Your task to perform on an android device: open app "Gmail" (install if not already installed) and enter user name: "undecidable@inbox.com" and password: "discouraging" Image 0: 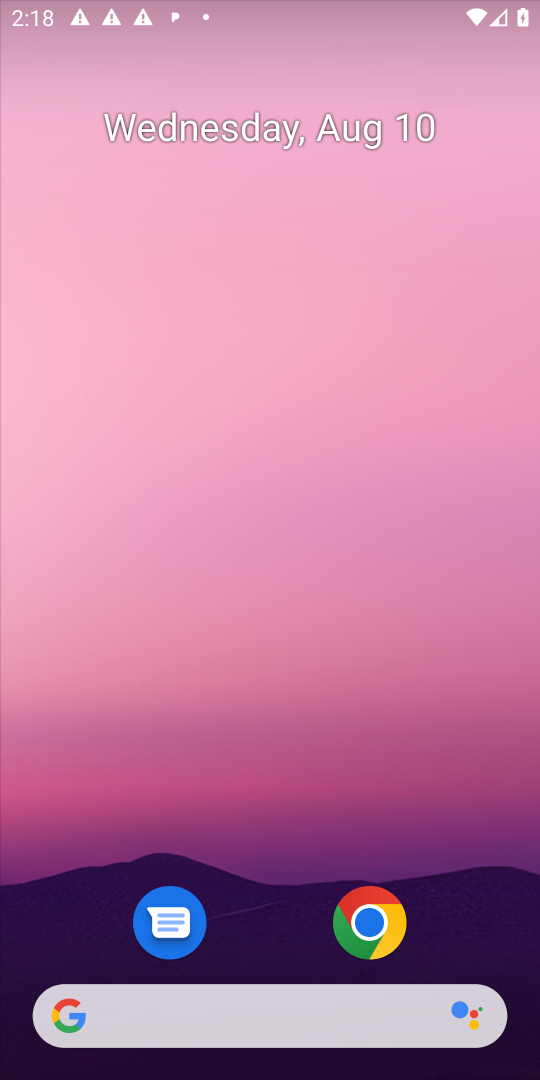
Step 0: press home button
Your task to perform on an android device: open app "Gmail" (install if not already installed) and enter user name: "undecidable@inbox.com" and password: "discouraging" Image 1: 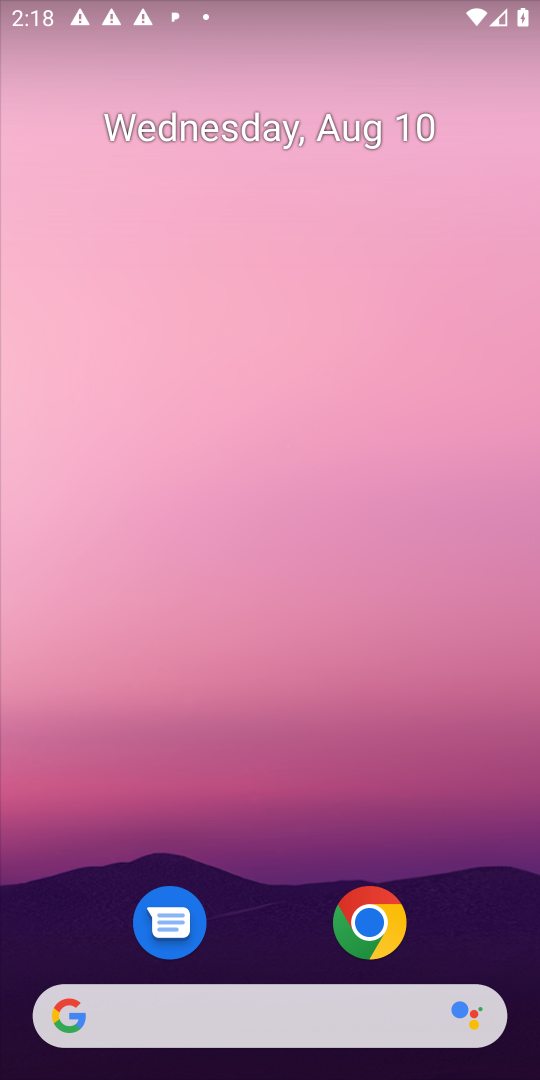
Step 1: drag from (161, 186) to (483, 5)
Your task to perform on an android device: open app "Gmail" (install if not already installed) and enter user name: "undecidable@inbox.com" and password: "discouraging" Image 2: 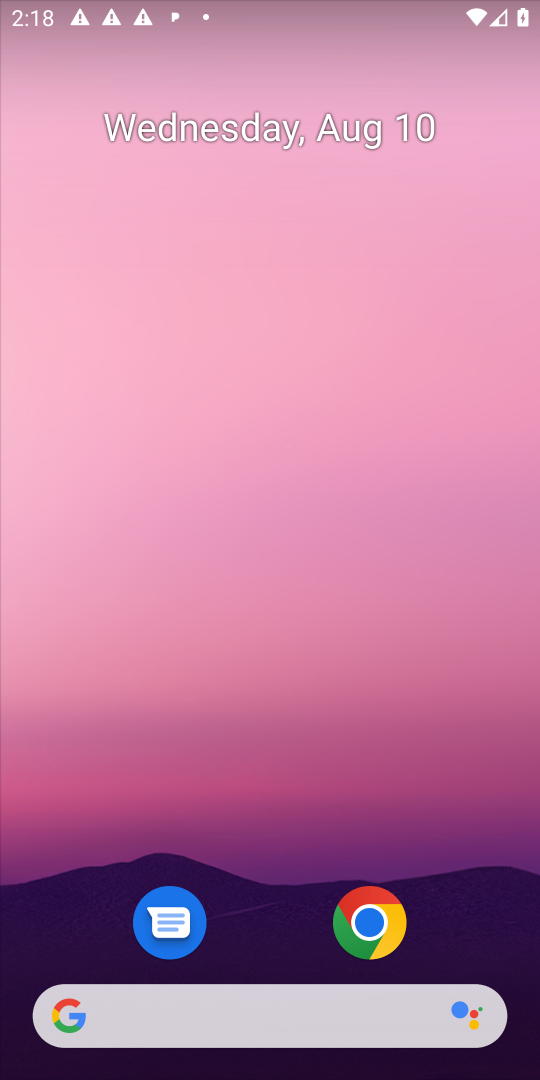
Step 2: drag from (278, 503) to (281, 0)
Your task to perform on an android device: open app "Gmail" (install if not already installed) and enter user name: "undecidable@inbox.com" and password: "discouraging" Image 3: 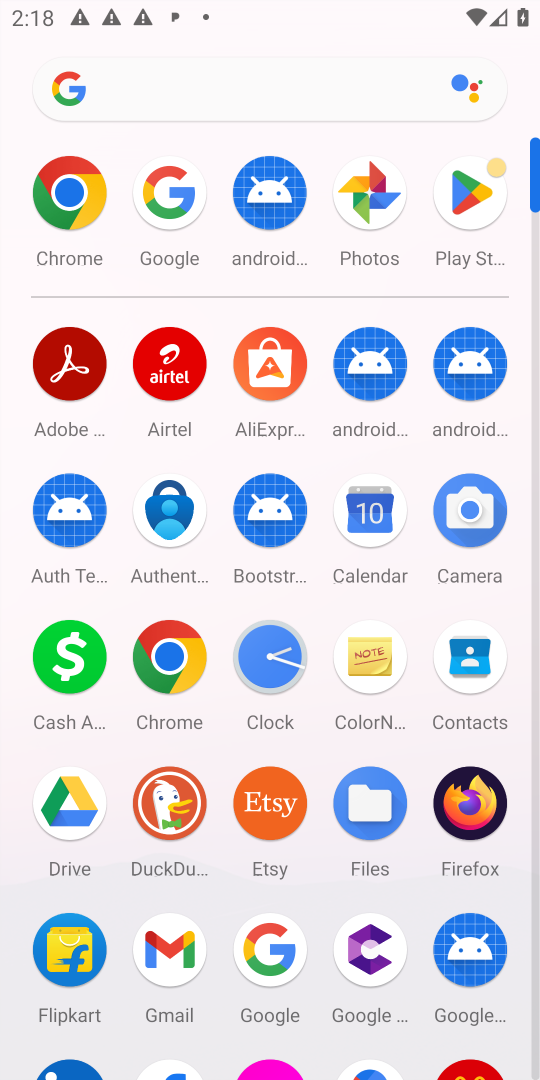
Step 3: click (470, 190)
Your task to perform on an android device: open app "Gmail" (install if not already installed) and enter user name: "undecidable@inbox.com" and password: "discouraging" Image 4: 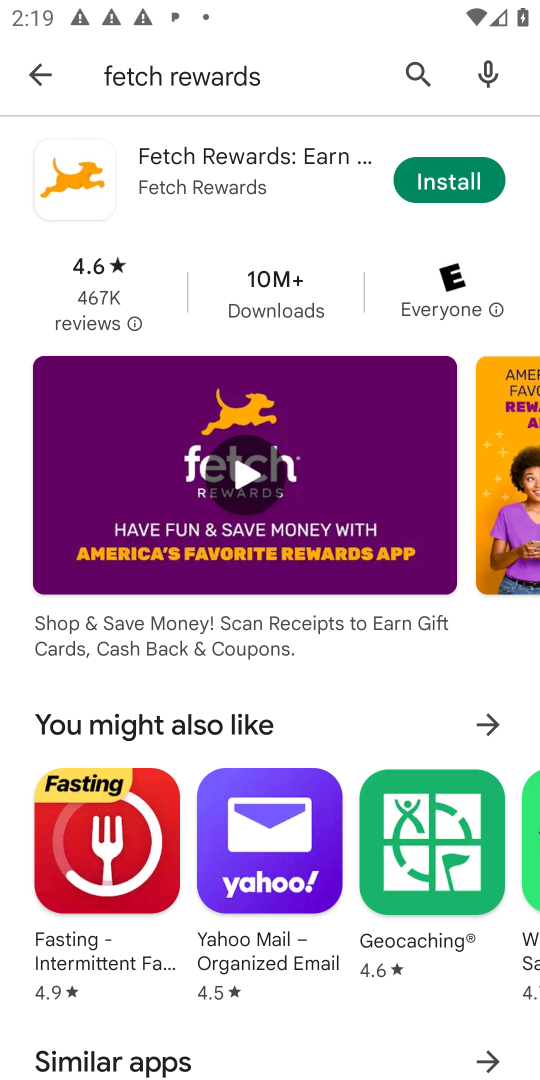
Step 4: click (42, 73)
Your task to perform on an android device: open app "Gmail" (install if not already installed) and enter user name: "undecidable@inbox.com" and password: "discouraging" Image 5: 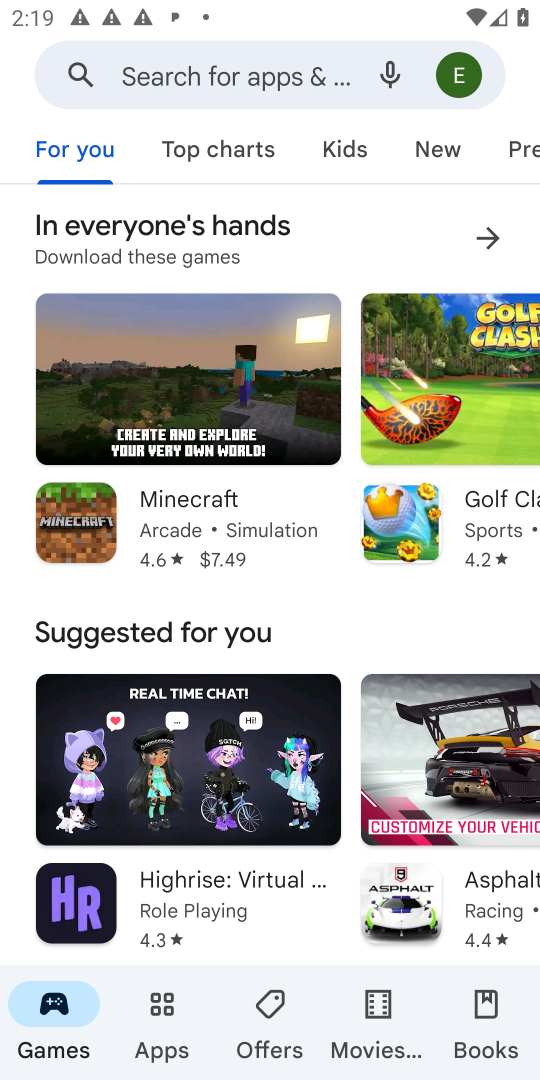
Step 5: click (198, 73)
Your task to perform on an android device: open app "Gmail" (install if not already installed) and enter user name: "undecidable@inbox.com" and password: "discouraging" Image 6: 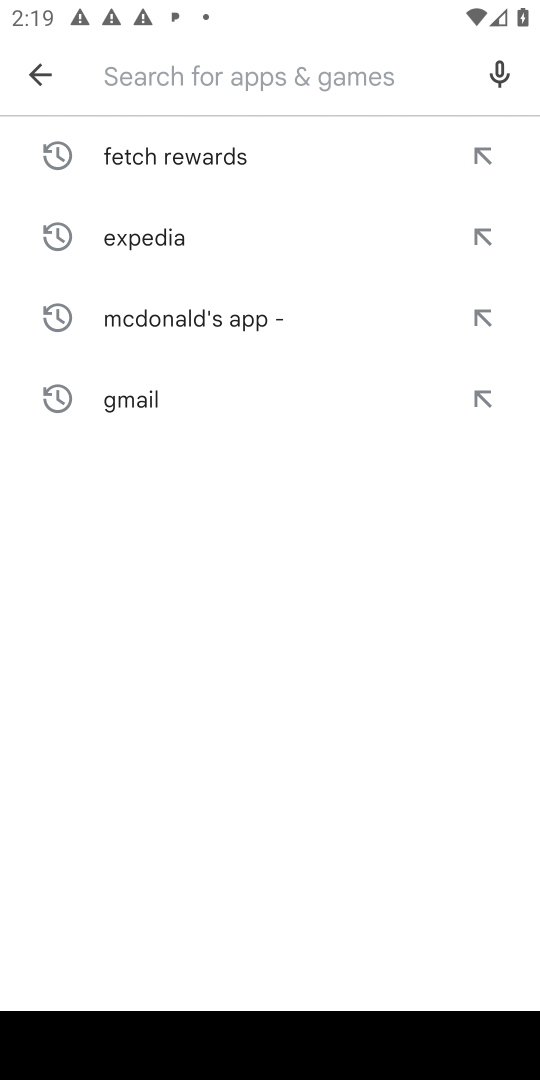
Step 6: type "Gmail"
Your task to perform on an android device: open app "Gmail" (install if not already installed) and enter user name: "undecidable@inbox.com" and password: "discouraging" Image 7: 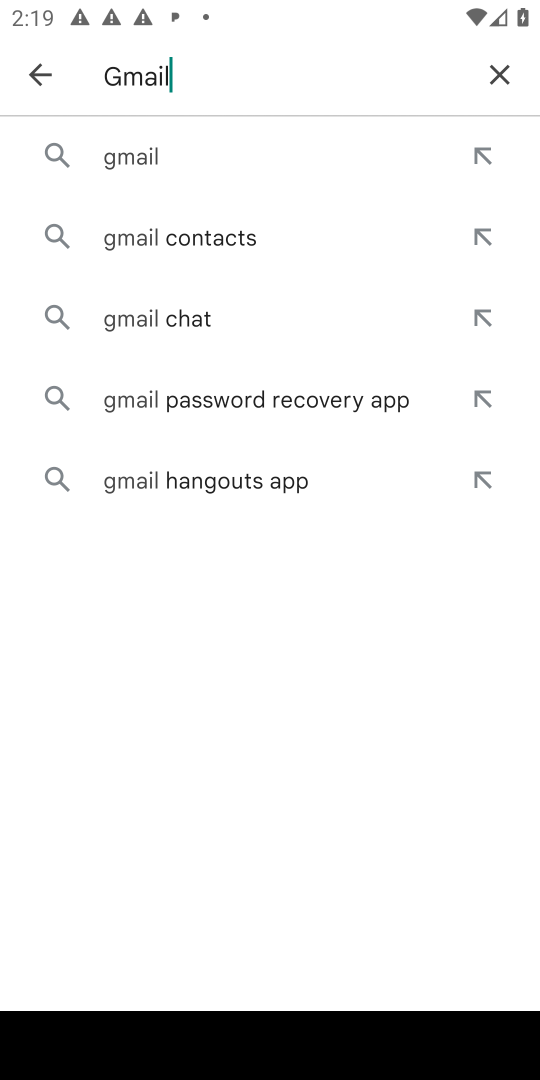
Step 7: click (149, 160)
Your task to perform on an android device: open app "Gmail" (install if not already installed) and enter user name: "undecidable@inbox.com" and password: "discouraging" Image 8: 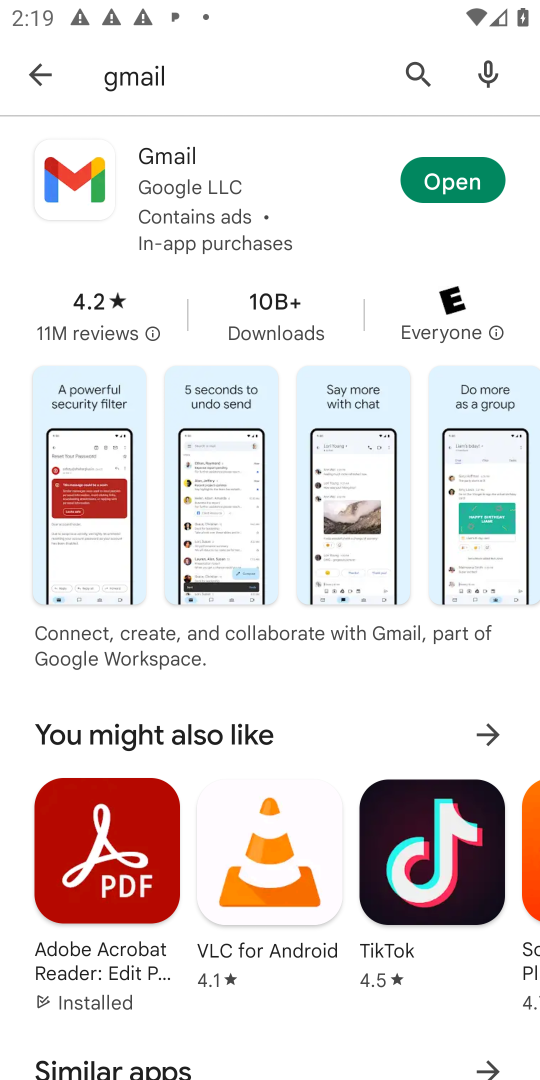
Step 8: click (446, 175)
Your task to perform on an android device: open app "Gmail" (install if not already installed) and enter user name: "undecidable@inbox.com" and password: "discouraging" Image 9: 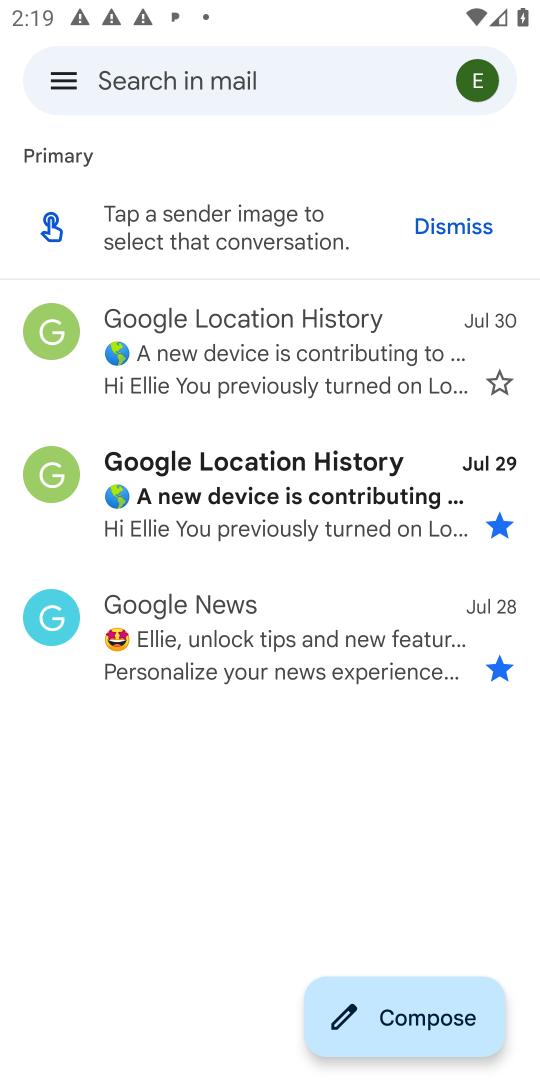
Step 9: click (473, 87)
Your task to perform on an android device: open app "Gmail" (install if not already installed) and enter user name: "undecidable@inbox.com" and password: "discouraging" Image 10: 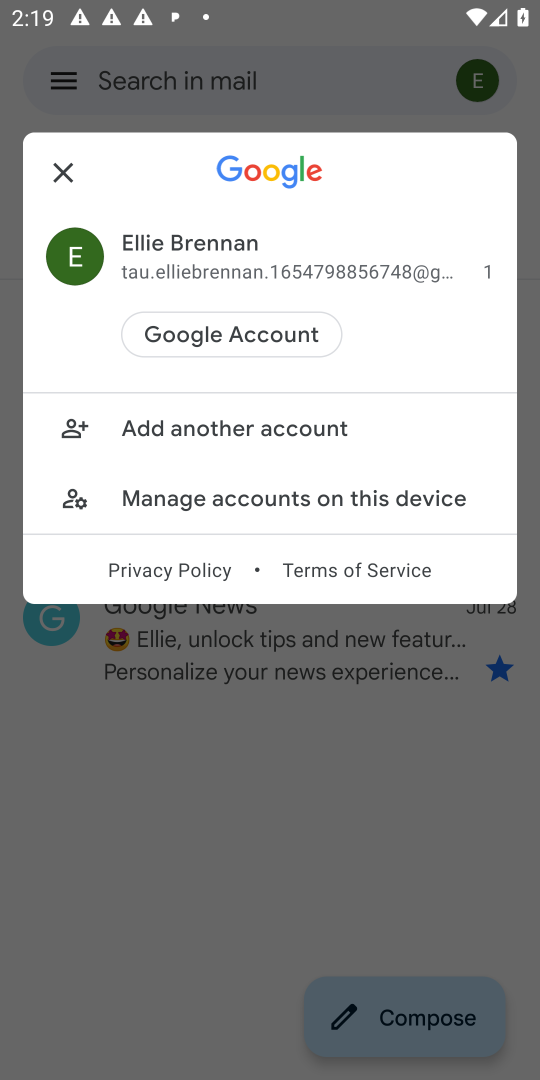
Step 10: click (206, 422)
Your task to perform on an android device: open app "Gmail" (install if not already installed) and enter user name: "undecidable@inbox.com" and password: "discouraging" Image 11: 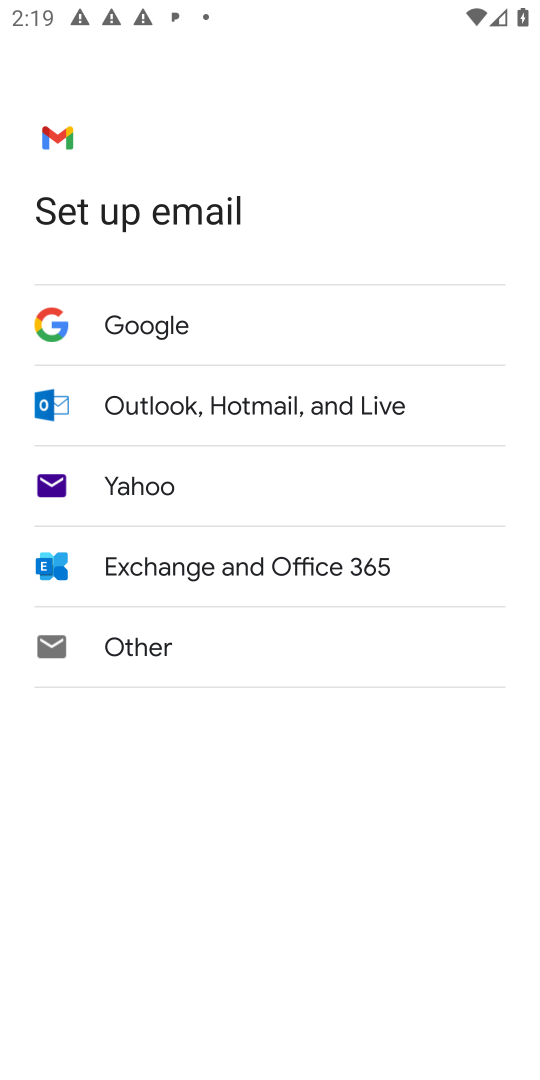
Step 11: click (121, 324)
Your task to perform on an android device: open app "Gmail" (install if not already installed) and enter user name: "undecidable@inbox.com" and password: "discouraging" Image 12: 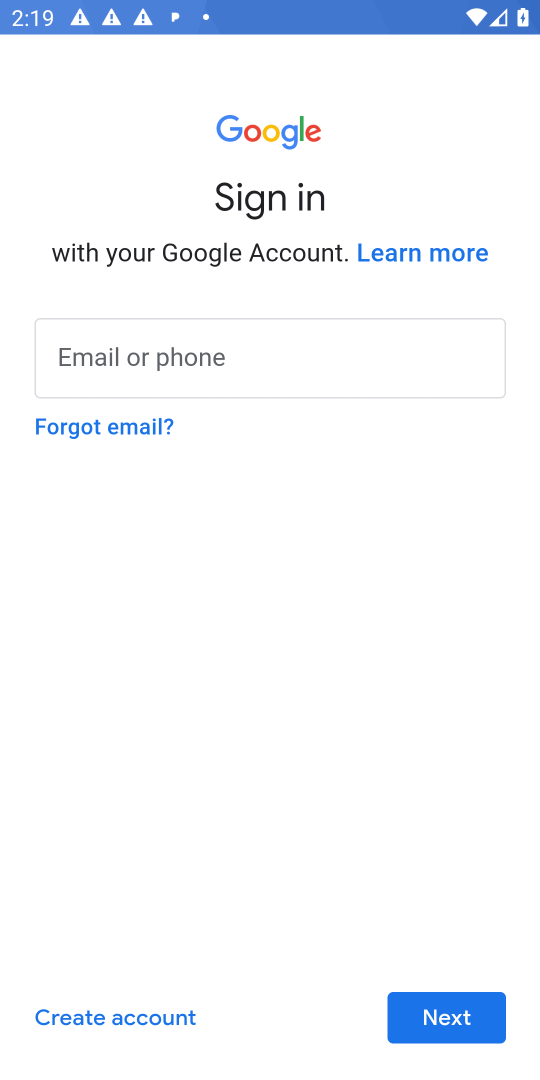
Step 12: click (161, 350)
Your task to perform on an android device: open app "Gmail" (install if not already installed) and enter user name: "undecidable@inbox.com" and password: "discouraging" Image 13: 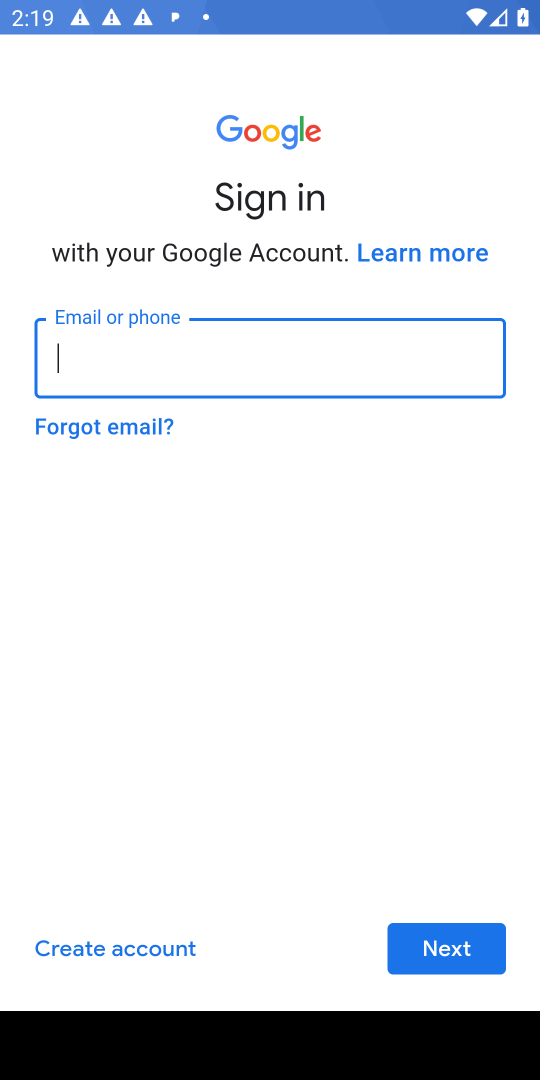
Step 13: type "undecidable@inbox.com"
Your task to perform on an android device: open app "Gmail" (install if not already installed) and enter user name: "undecidable@inbox.com" and password: "discouraging" Image 14: 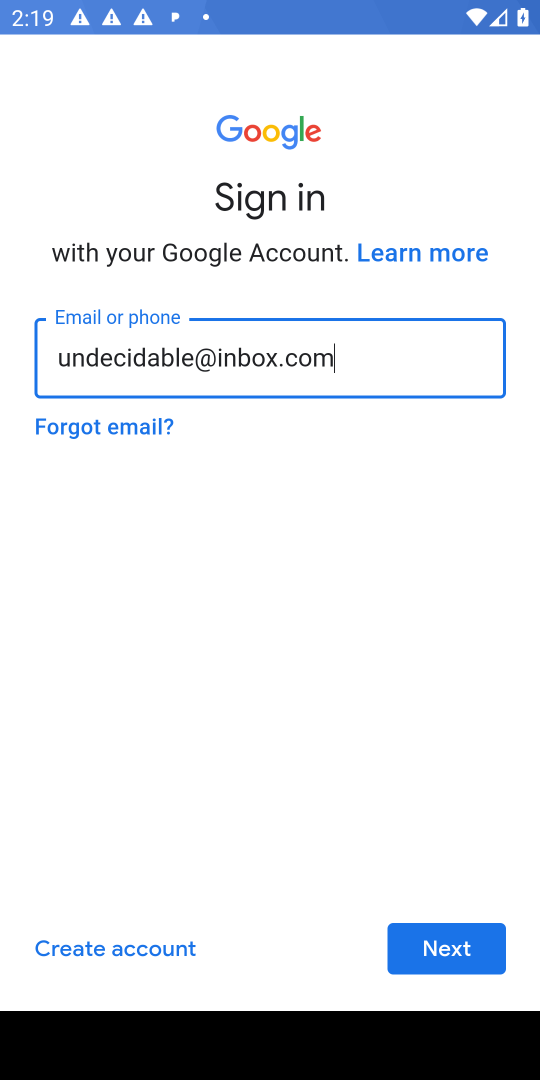
Step 14: click (448, 942)
Your task to perform on an android device: open app "Gmail" (install if not already installed) and enter user name: "undecidable@inbox.com" and password: "discouraging" Image 15: 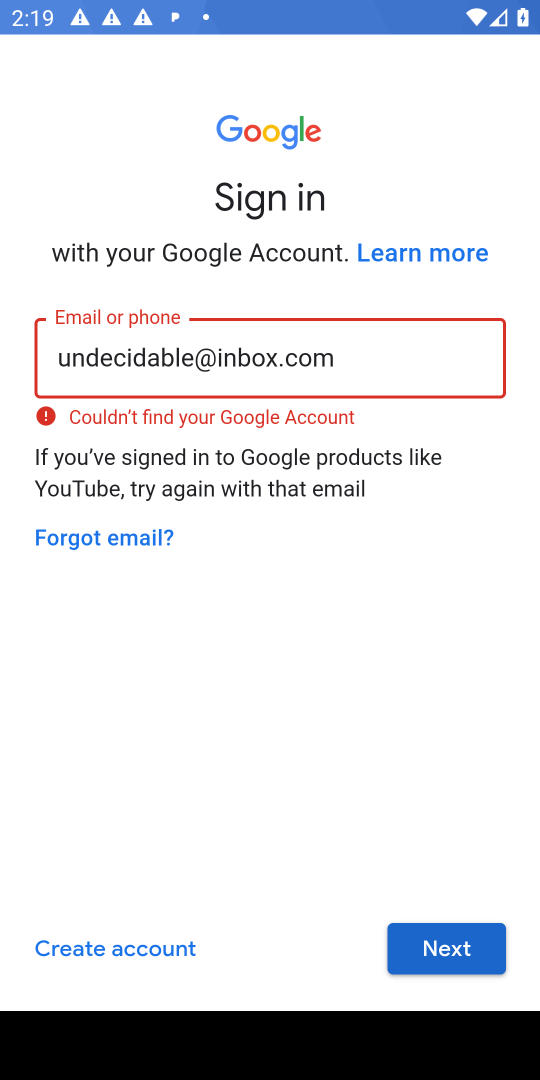
Step 15: task complete